Your task to perform on an android device: check the backup settings in the google photos Image 0: 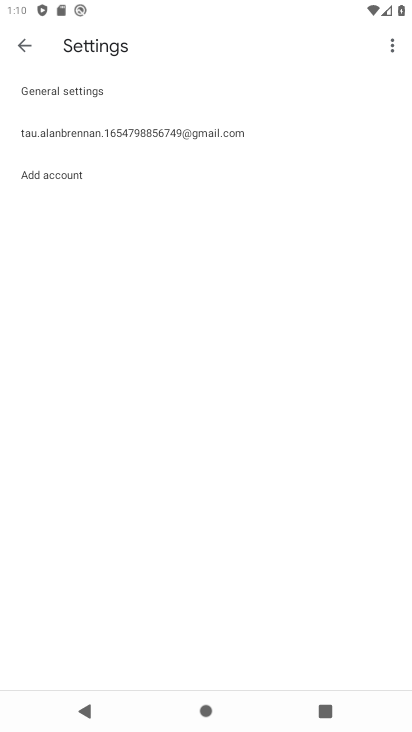
Step 0: press home button
Your task to perform on an android device: check the backup settings in the google photos Image 1: 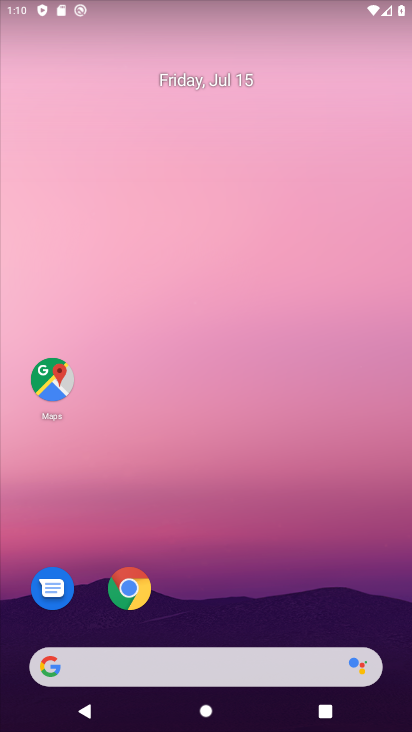
Step 1: drag from (239, 532) to (126, 17)
Your task to perform on an android device: check the backup settings in the google photos Image 2: 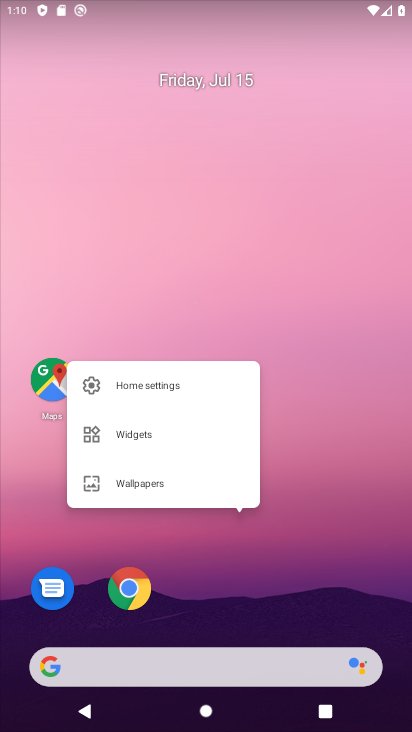
Step 2: click (291, 509)
Your task to perform on an android device: check the backup settings in the google photos Image 3: 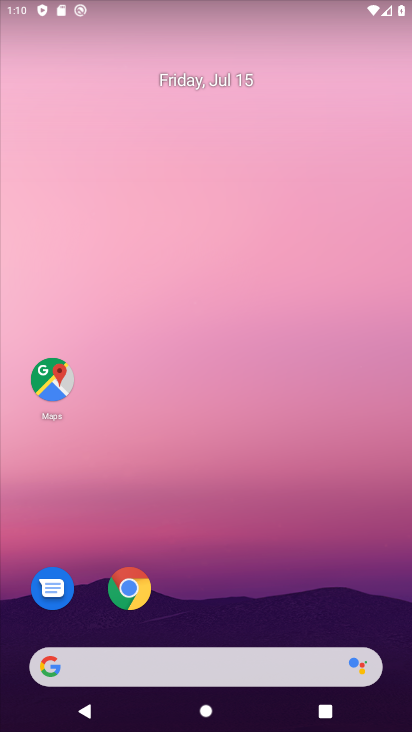
Step 3: drag from (291, 509) to (316, 125)
Your task to perform on an android device: check the backup settings in the google photos Image 4: 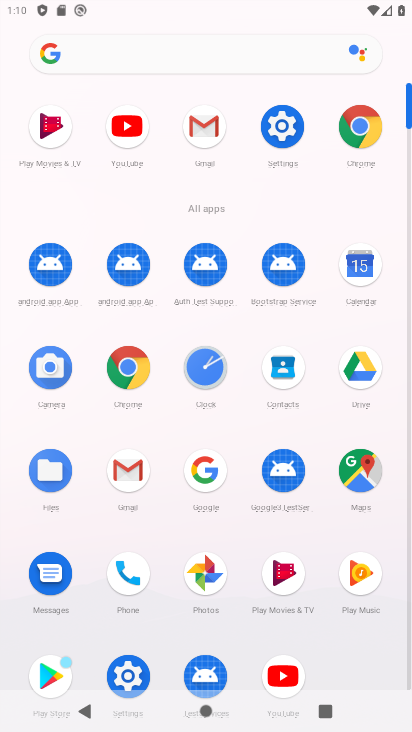
Step 4: click (202, 578)
Your task to perform on an android device: check the backup settings in the google photos Image 5: 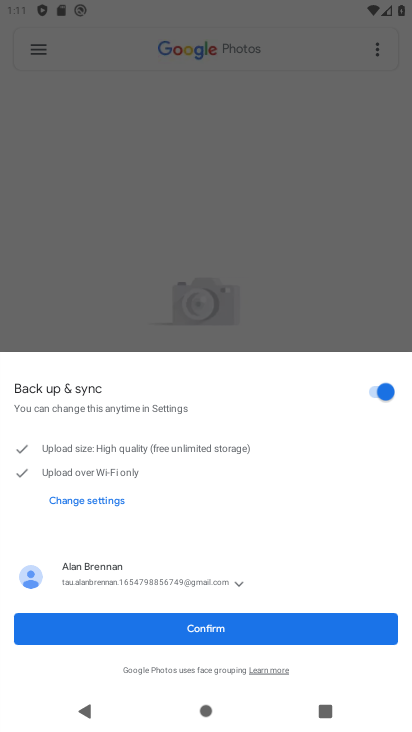
Step 5: click (193, 631)
Your task to perform on an android device: check the backup settings in the google photos Image 6: 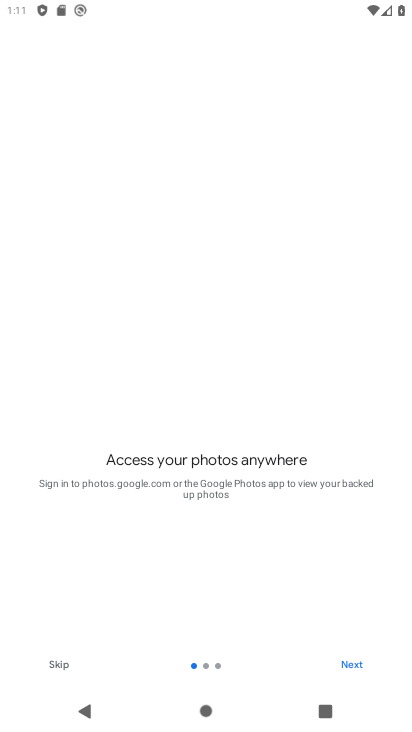
Step 6: click (347, 660)
Your task to perform on an android device: check the backup settings in the google photos Image 7: 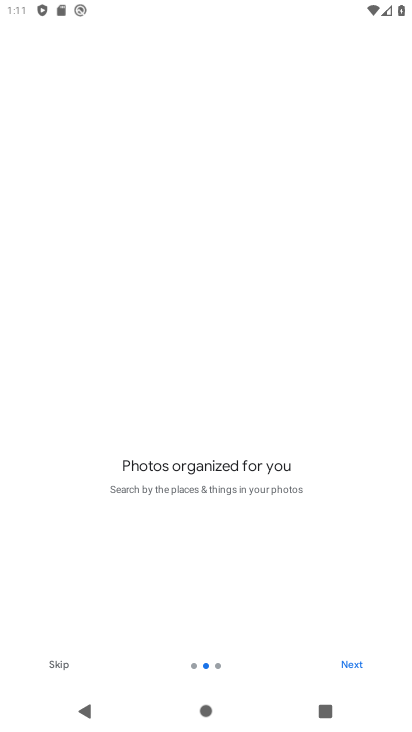
Step 7: click (347, 660)
Your task to perform on an android device: check the backup settings in the google photos Image 8: 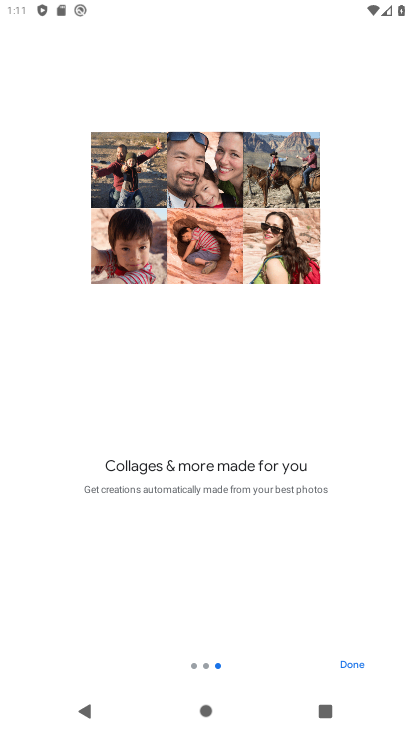
Step 8: click (347, 660)
Your task to perform on an android device: check the backup settings in the google photos Image 9: 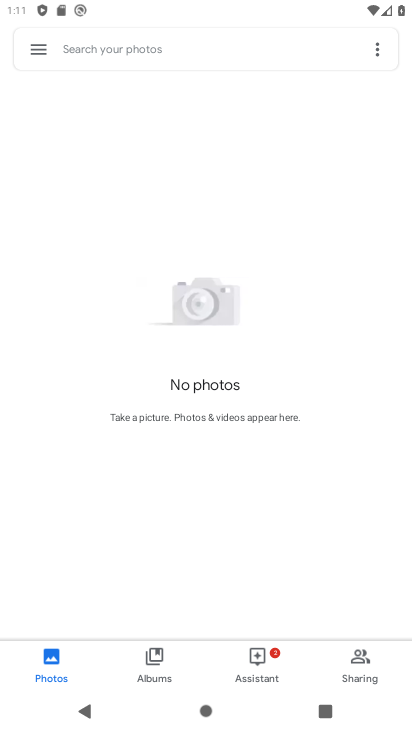
Step 9: click (37, 45)
Your task to perform on an android device: check the backup settings in the google photos Image 10: 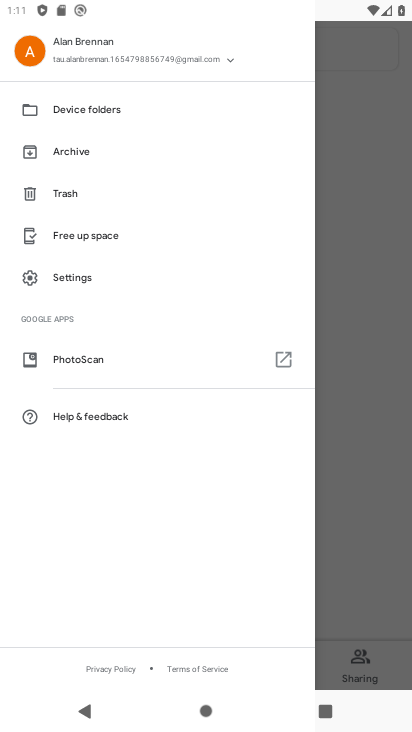
Step 10: click (74, 283)
Your task to perform on an android device: check the backup settings in the google photos Image 11: 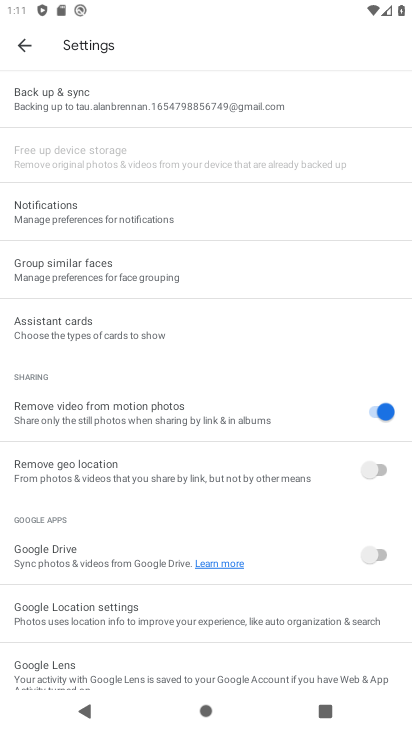
Step 11: click (227, 97)
Your task to perform on an android device: check the backup settings in the google photos Image 12: 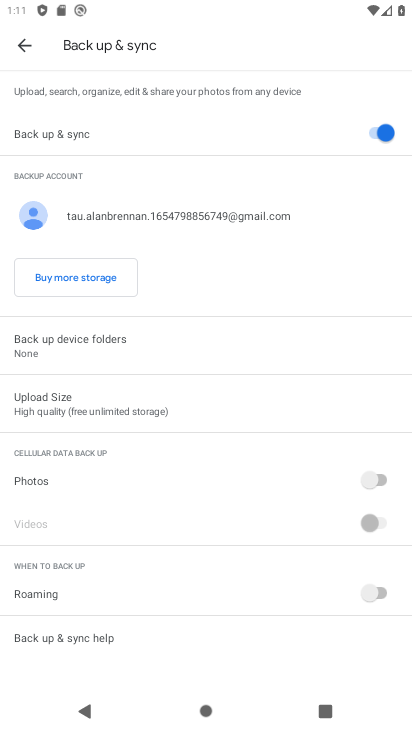
Step 12: task complete